Your task to perform on an android device: check out phone information Image 0: 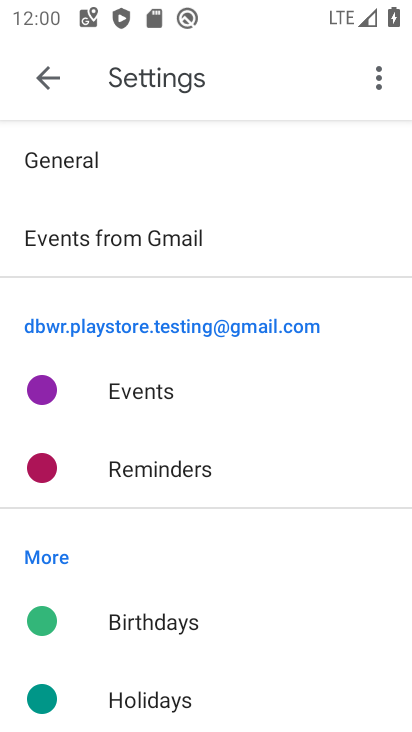
Step 0: press home button
Your task to perform on an android device: check out phone information Image 1: 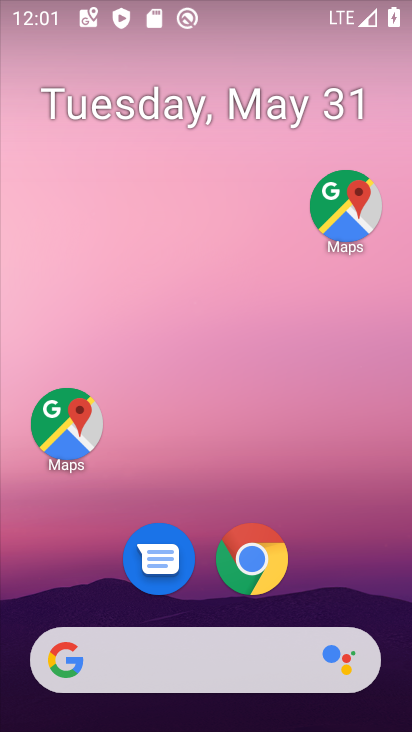
Step 1: drag from (340, 569) to (197, 24)
Your task to perform on an android device: check out phone information Image 2: 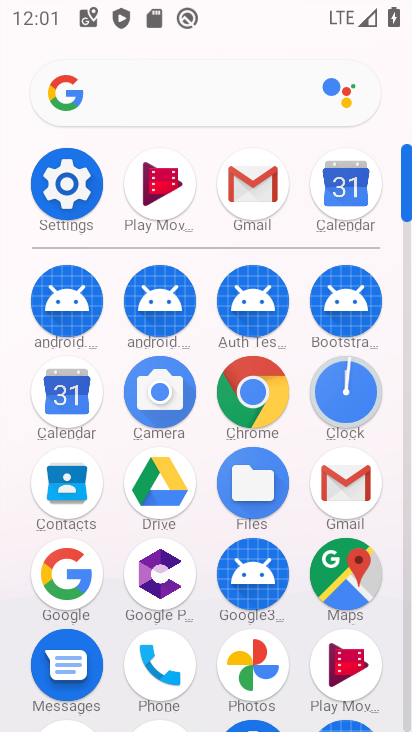
Step 2: click (160, 659)
Your task to perform on an android device: check out phone information Image 3: 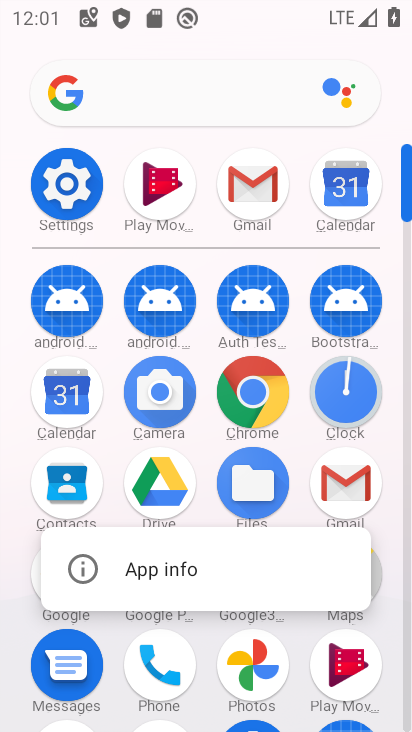
Step 3: click (215, 575)
Your task to perform on an android device: check out phone information Image 4: 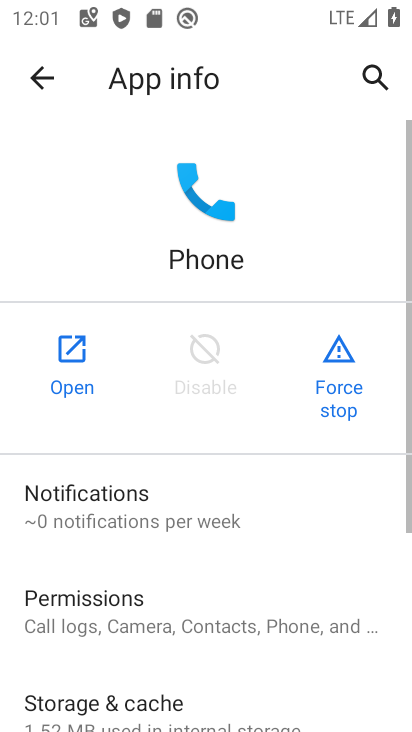
Step 4: task complete